Your task to perform on an android device: What's the weather going to be this weekend? Image 0: 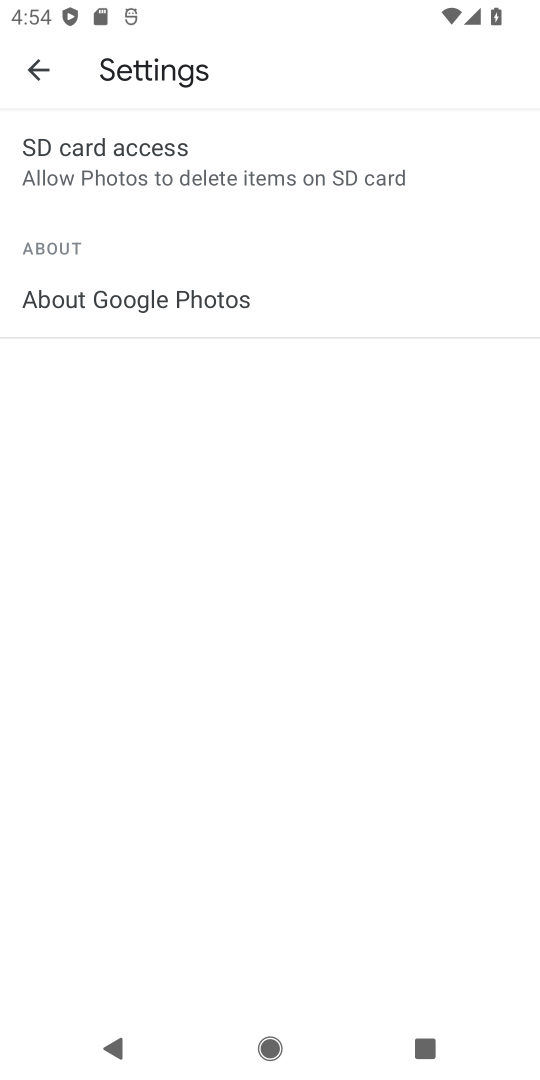
Step 0: press home button
Your task to perform on an android device: What's the weather going to be this weekend? Image 1: 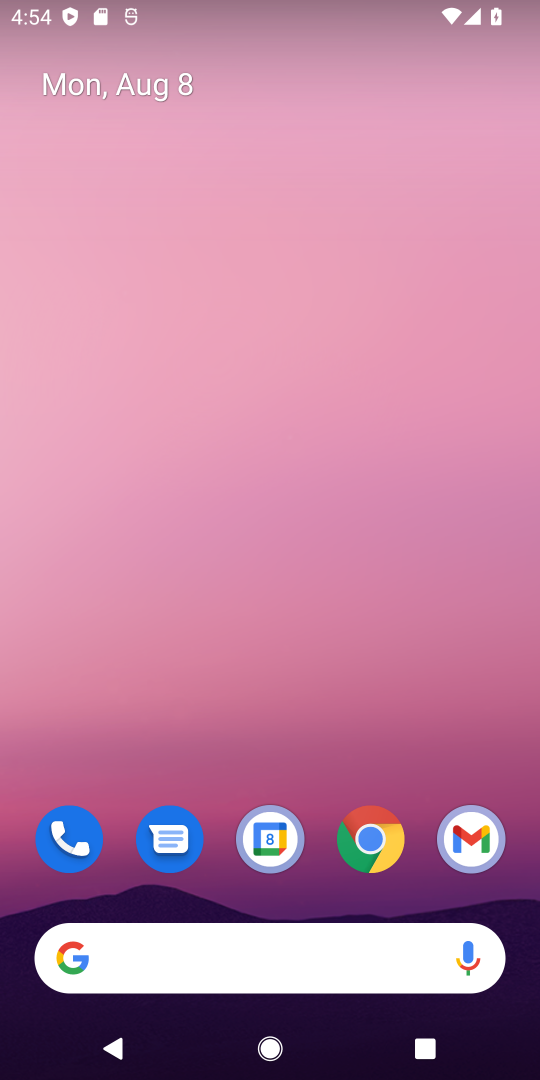
Step 1: drag from (253, 850) to (342, 19)
Your task to perform on an android device: What's the weather going to be this weekend? Image 2: 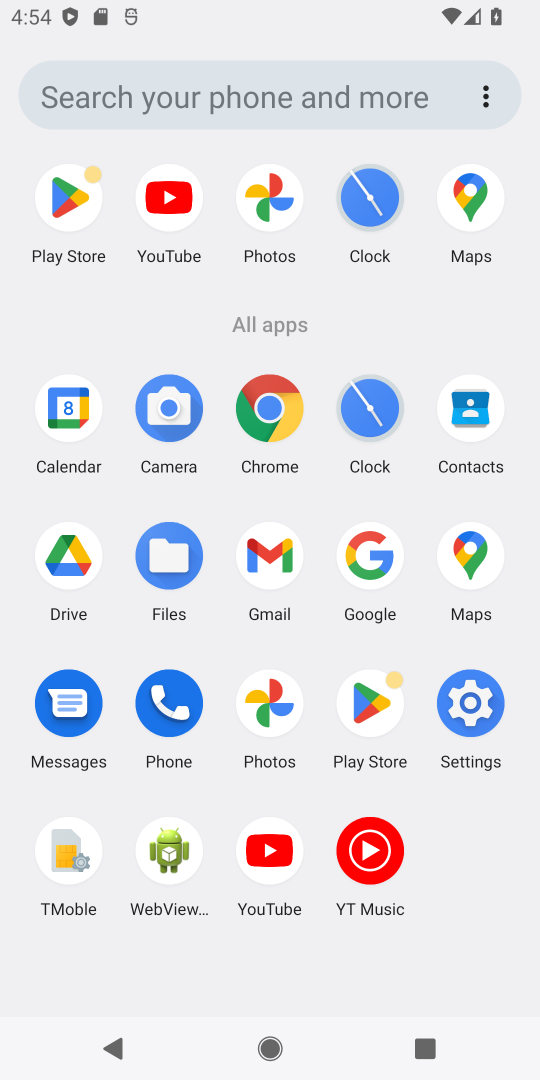
Step 2: click (431, 707)
Your task to perform on an android device: What's the weather going to be this weekend? Image 3: 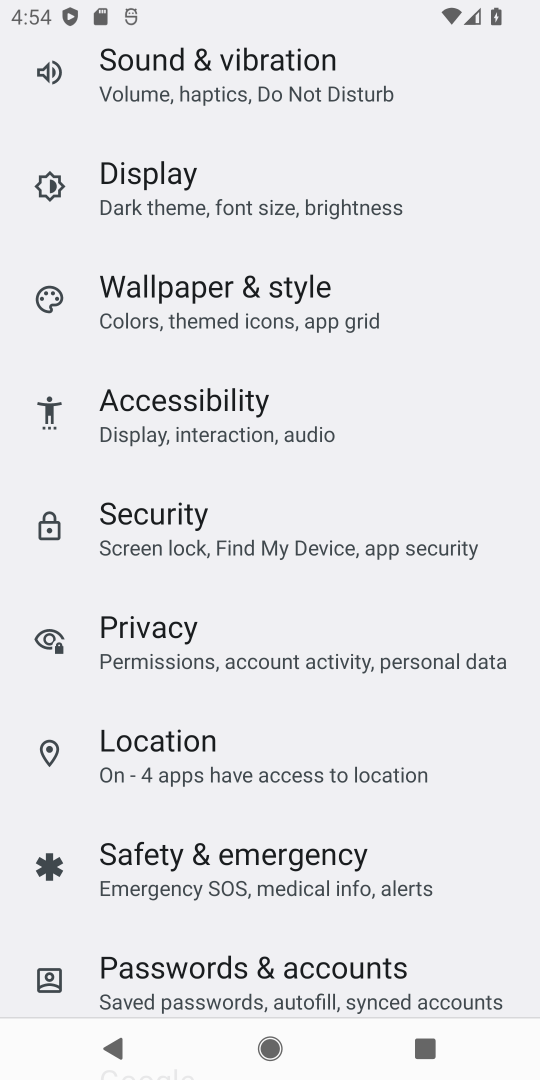
Step 3: press home button
Your task to perform on an android device: What's the weather going to be this weekend? Image 4: 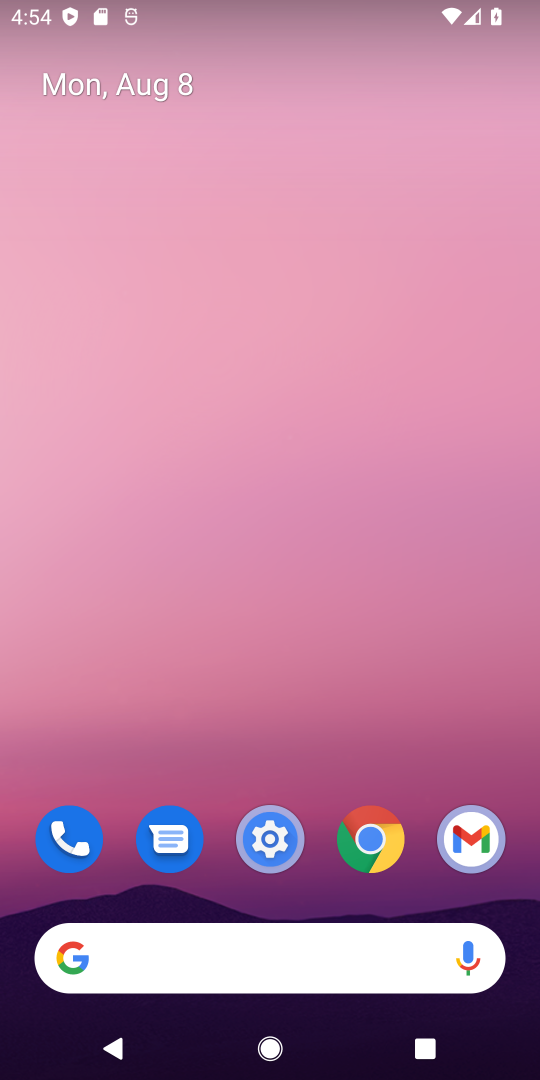
Step 4: click (314, 958)
Your task to perform on an android device: What's the weather going to be this weekend? Image 5: 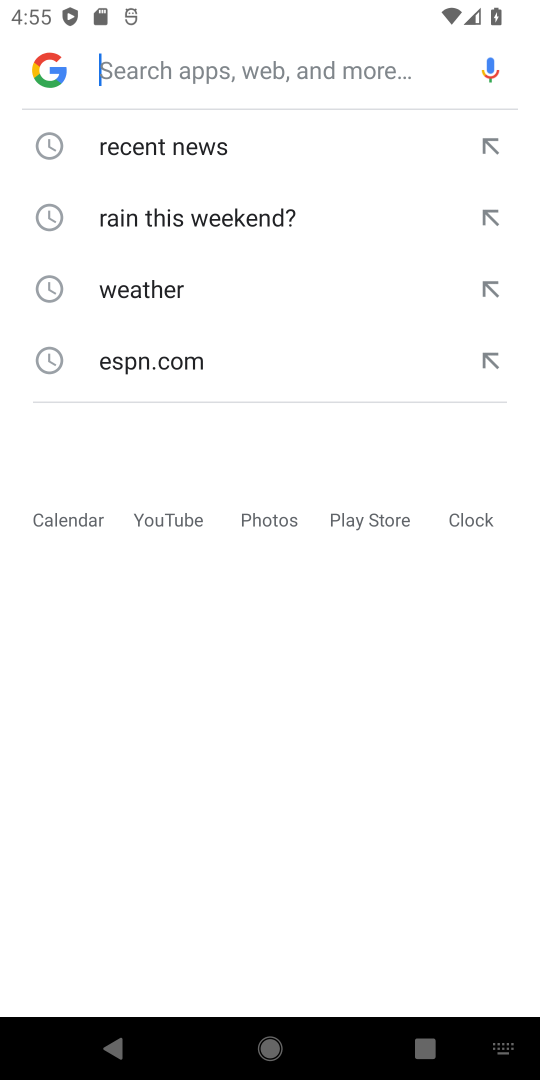
Step 5: click (136, 309)
Your task to perform on an android device: What's the weather going to be this weekend? Image 6: 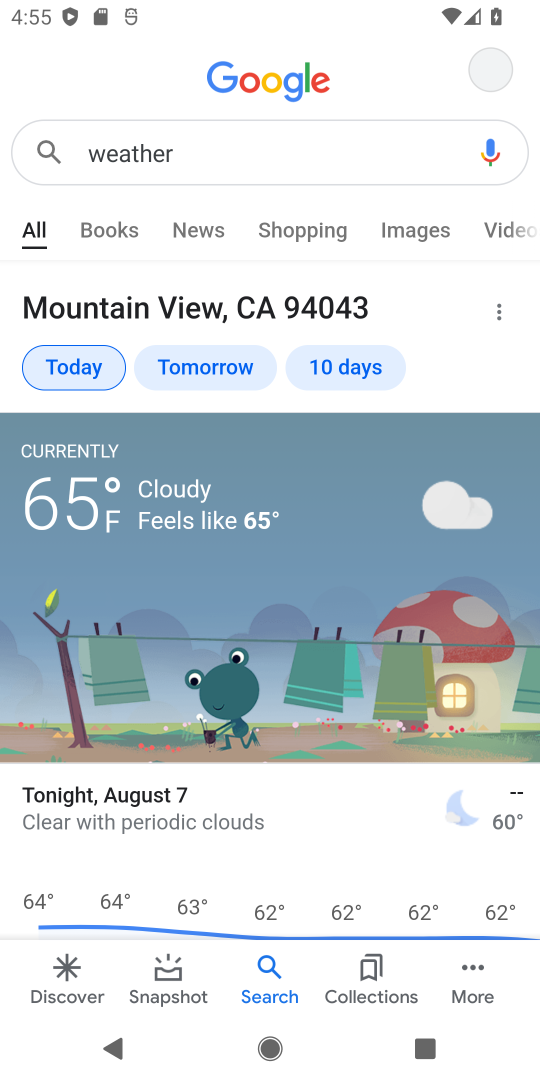
Step 6: click (348, 370)
Your task to perform on an android device: What's the weather going to be this weekend? Image 7: 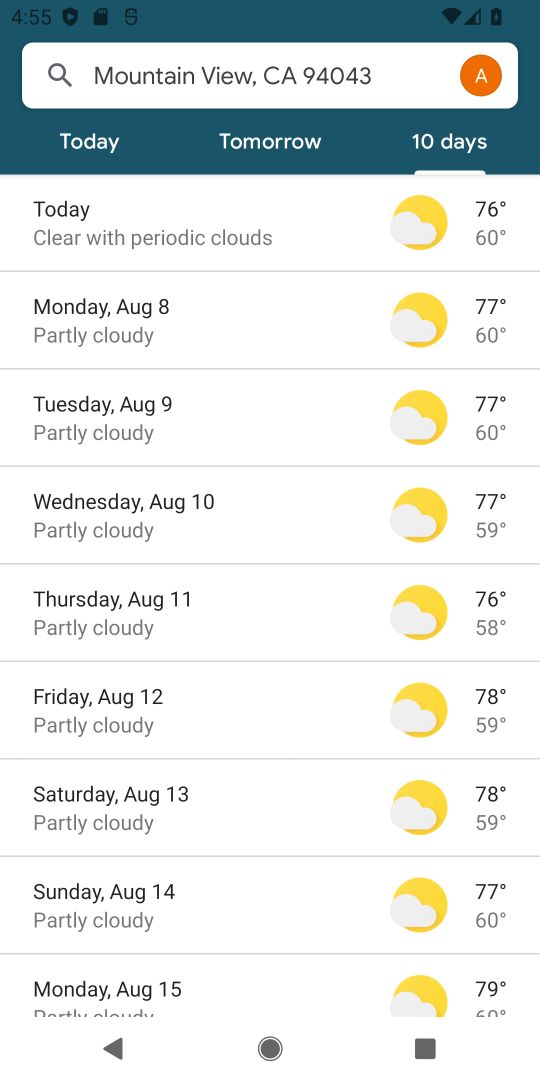
Step 7: task complete